Your task to perform on an android device: Go to location settings Image 0: 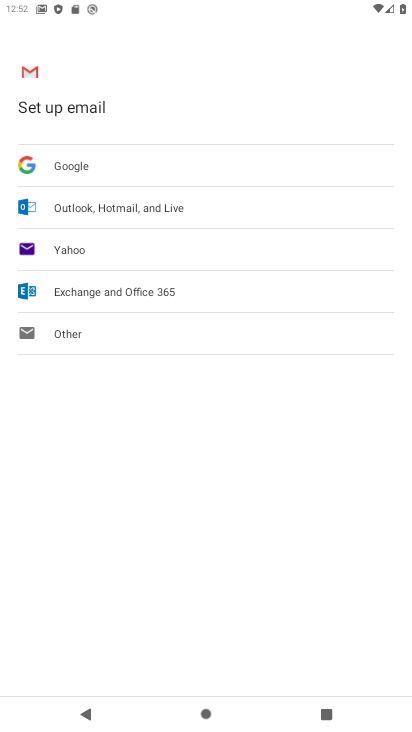
Step 0: press home button
Your task to perform on an android device: Go to location settings Image 1: 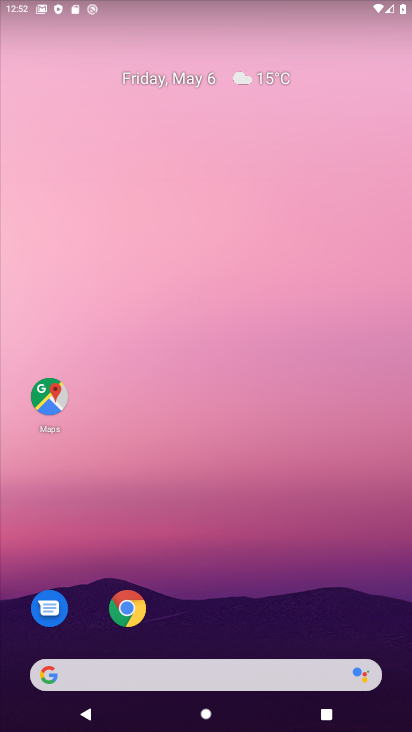
Step 1: drag from (242, 620) to (344, 135)
Your task to perform on an android device: Go to location settings Image 2: 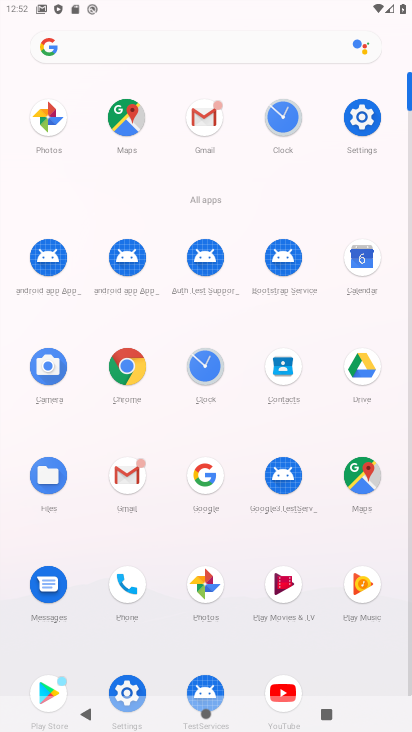
Step 2: click (360, 124)
Your task to perform on an android device: Go to location settings Image 3: 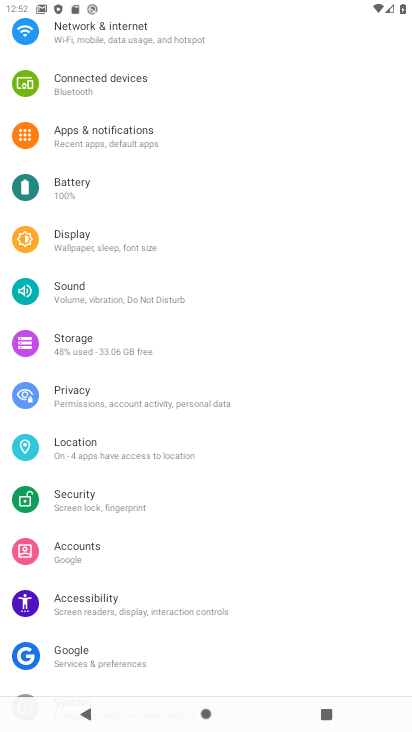
Step 3: drag from (150, 76) to (185, 250)
Your task to perform on an android device: Go to location settings Image 4: 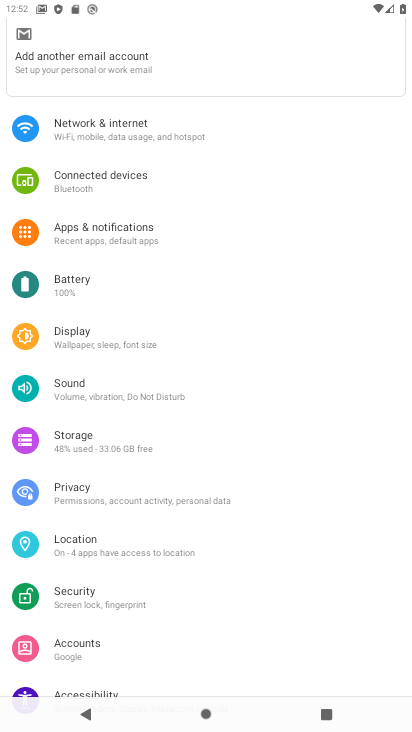
Step 4: click (75, 528)
Your task to perform on an android device: Go to location settings Image 5: 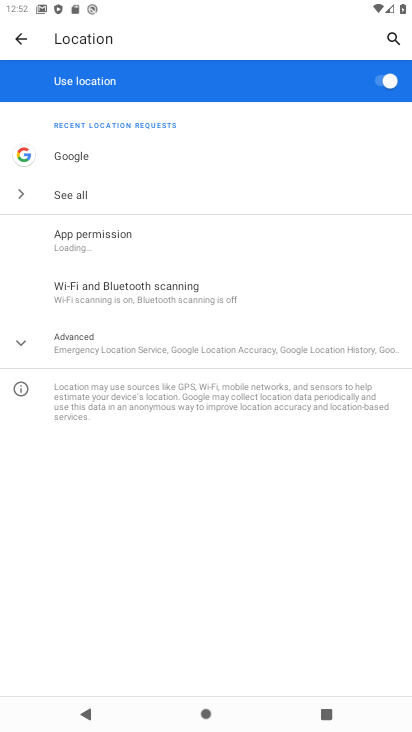
Step 5: task complete